Your task to perform on an android device: Do I have any events today? Image 0: 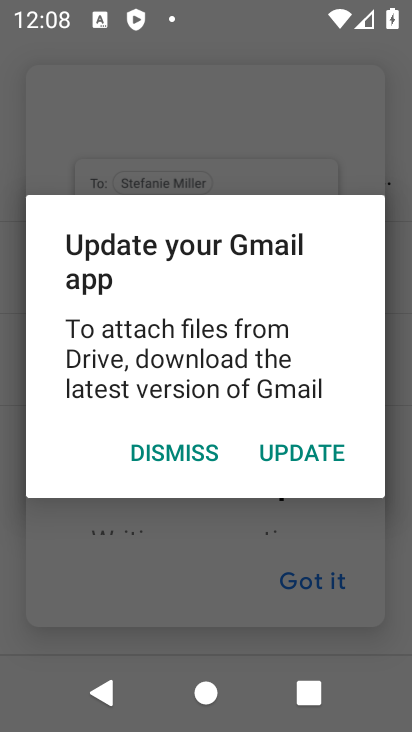
Step 0: press home button
Your task to perform on an android device: Do I have any events today? Image 1: 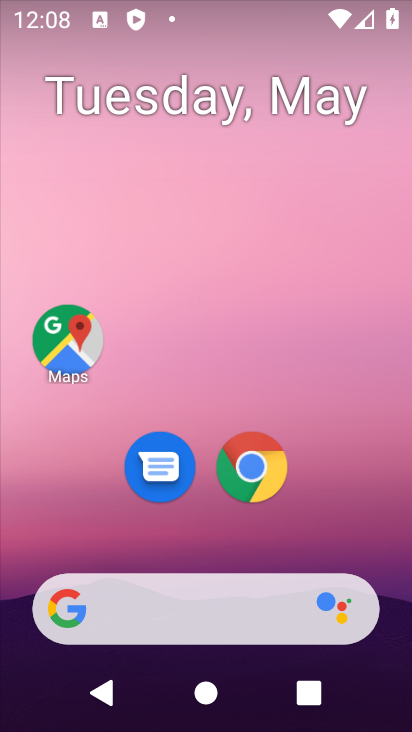
Step 1: click (196, 93)
Your task to perform on an android device: Do I have any events today? Image 2: 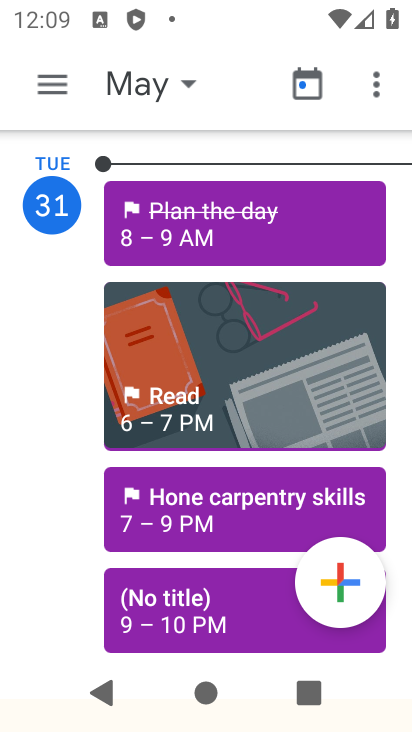
Step 2: task complete